Your task to perform on an android device: Go to Google maps Image 0: 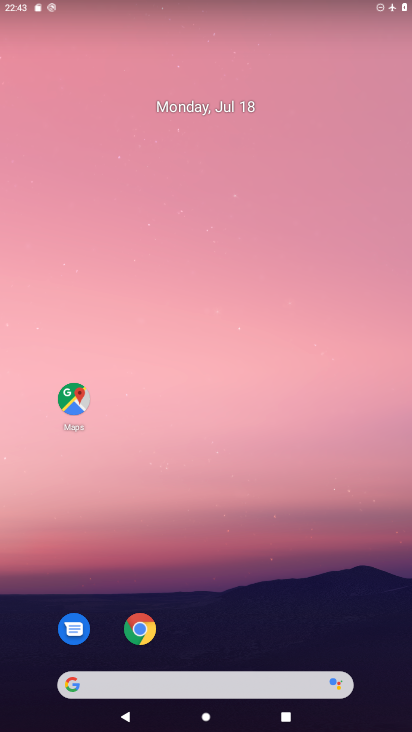
Step 0: drag from (282, 511) to (284, 90)
Your task to perform on an android device: Go to Google maps Image 1: 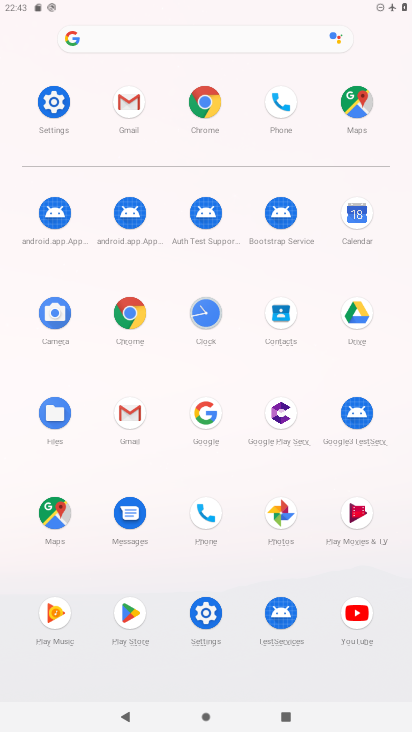
Step 1: click (366, 101)
Your task to perform on an android device: Go to Google maps Image 2: 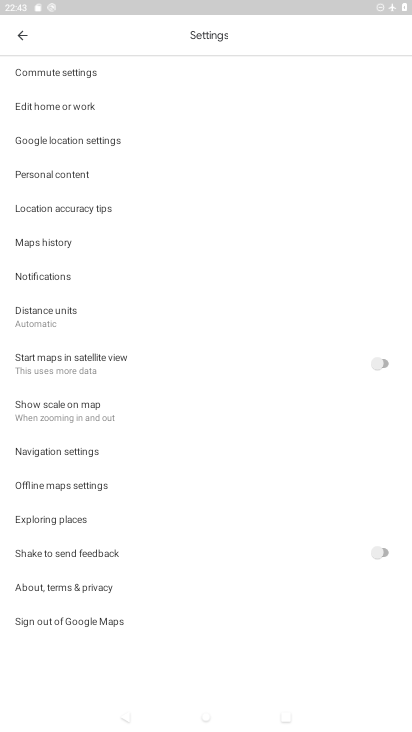
Step 2: click (23, 34)
Your task to perform on an android device: Go to Google maps Image 3: 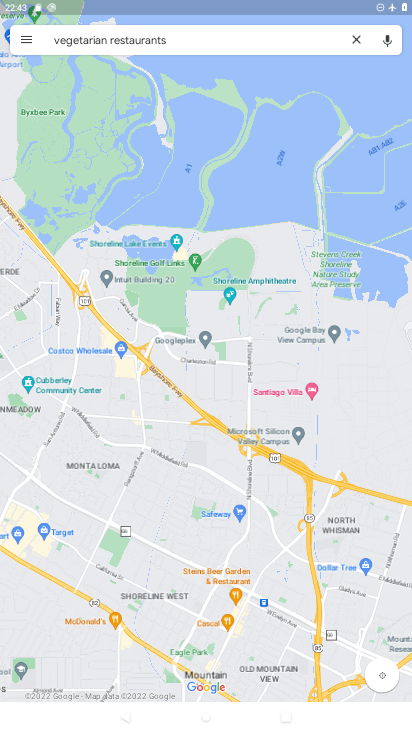
Step 3: task complete